Your task to perform on an android device: Toggle the flashlight Image 0: 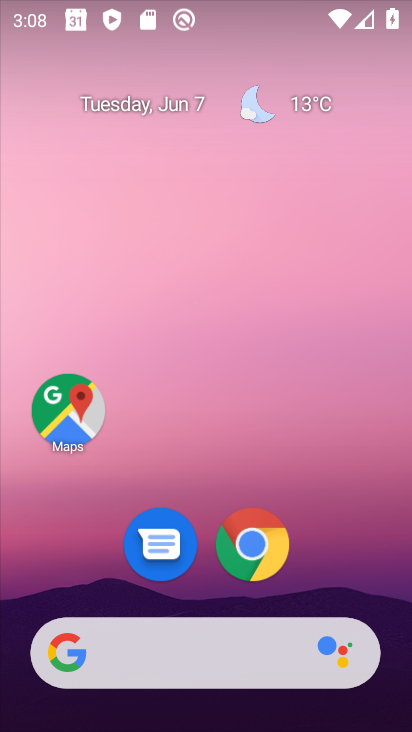
Step 0: drag from (211, 595) to (291, 43)
Your task to perform on an android device: Toggle the flashlight Image 1: 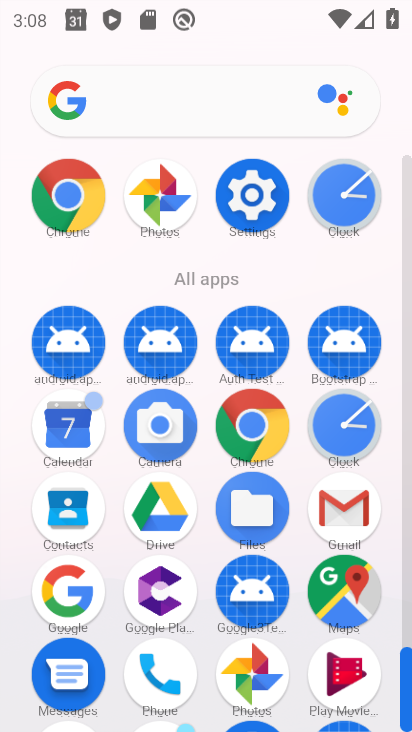
Step 1: click (250, 186)
Your task to perform on an android device: Toggle the flashlight Image 2: 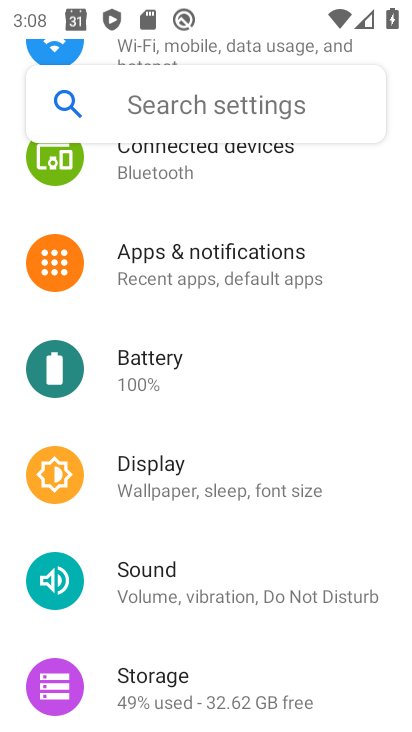
Step 2: click (169, 97)
Your task to perform on an android device: Toggle the flashlight Image 3: 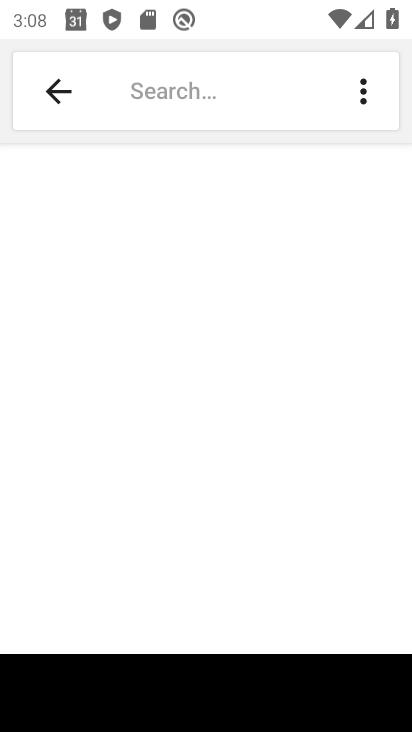
Step 3: type "flashlight"
Your task to perform on an android device: Toggle the flashlight Image 4: 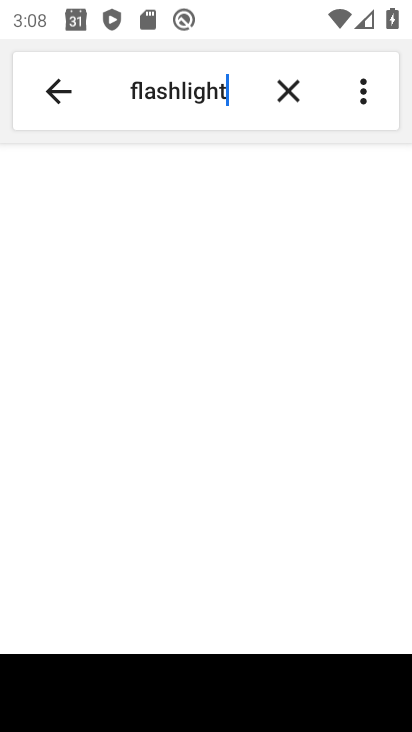
Step 4: type ""
Your task to perform on an android device: Toggle the flashlight Image 5: 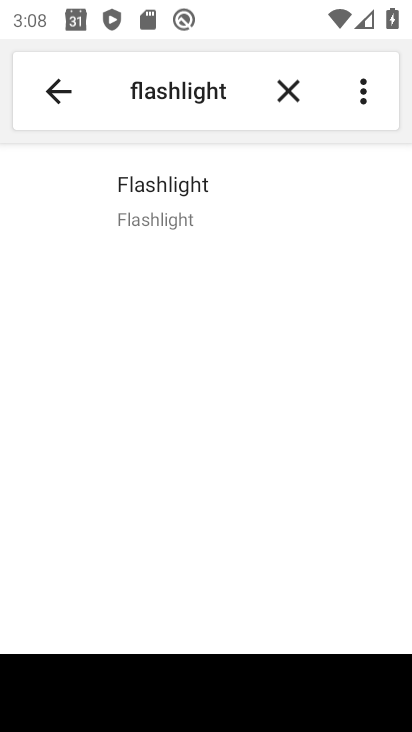
Step 5: click (212, 199)
Your task to perform on an android device: Toggle the flashlight Image 6: 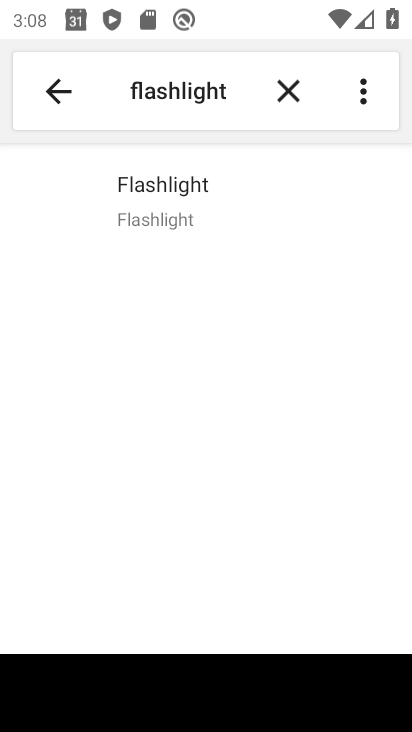
Step 6: click (205, 204)
Your task to perform on an android device: Toggle the flashlight Image 7: 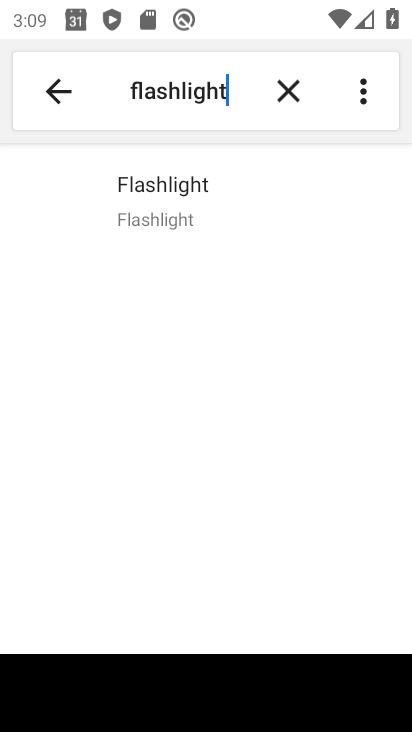
Step 7: task complete